Your task to perform on an android device: Go to battery settings Image 0: 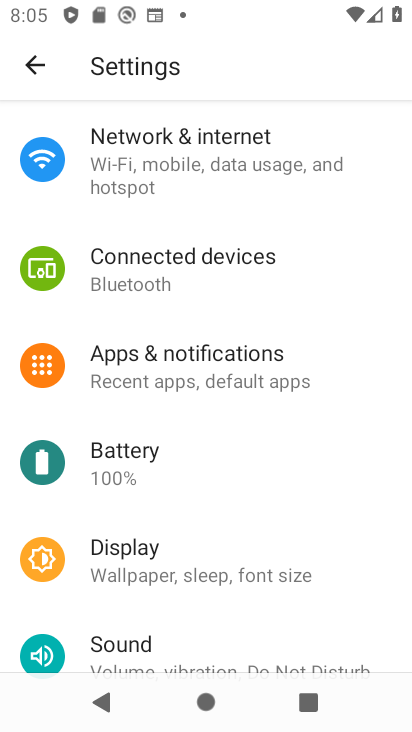
Step 0: press home button
Your task to perform on an android device: Go to battery settings Image 1: 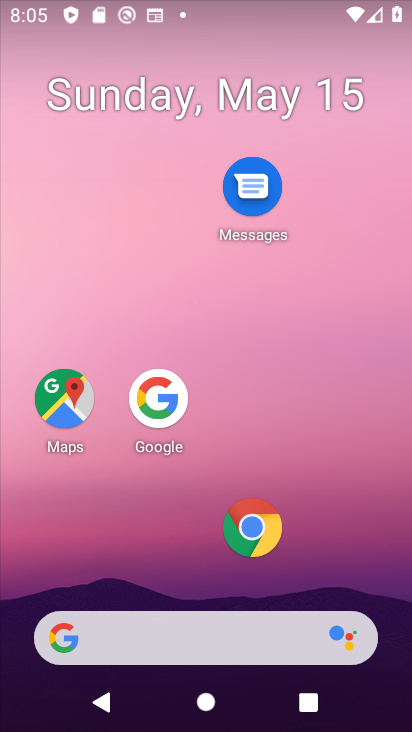
Step 1: drag from (165, 656) to (328, 69)
Your task to perform on an android device: Go to battery settings Image 2: 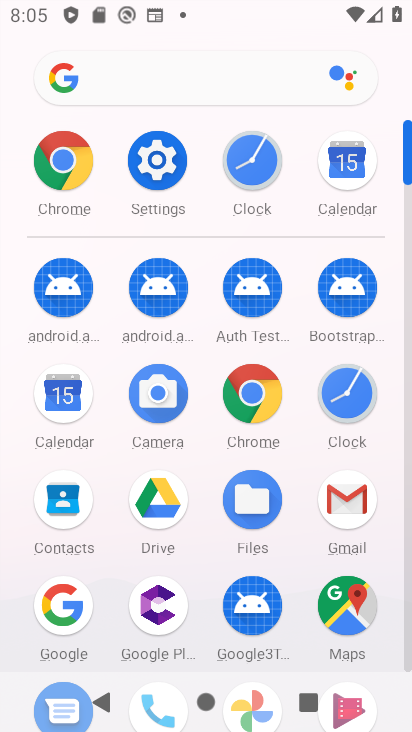
Step 2: click (153, 169)
Your task to perform on an android device: Go to battery settings Image 3: 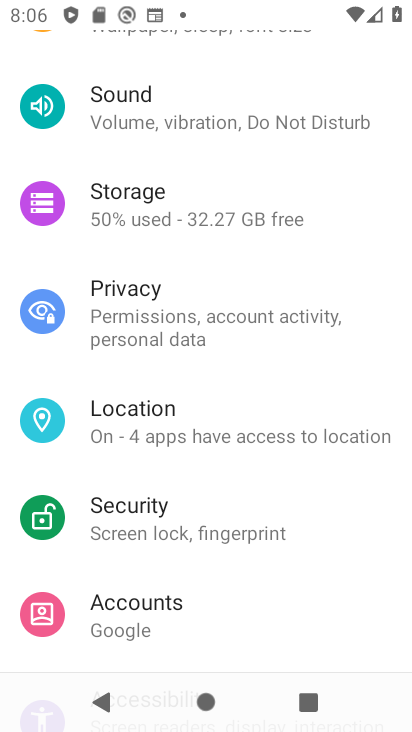
Step 3: drag from (283, 73) to (189, 455)
Your task to perform on an android device: Go to battery settings Image 4: 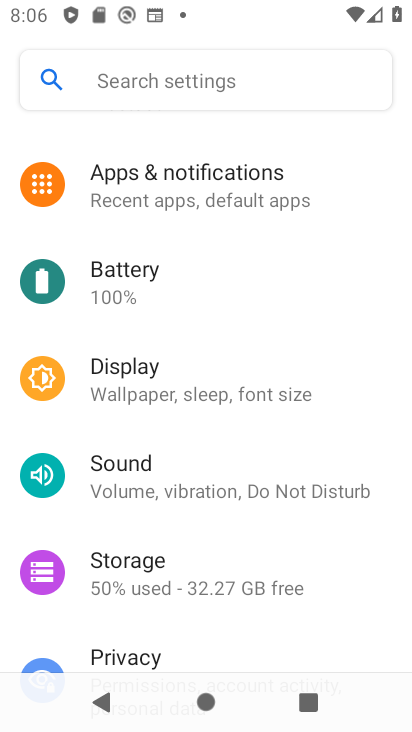
Step 4: click (139, 277)
Your task to perform on an android device: Go to battery settings Image 5: 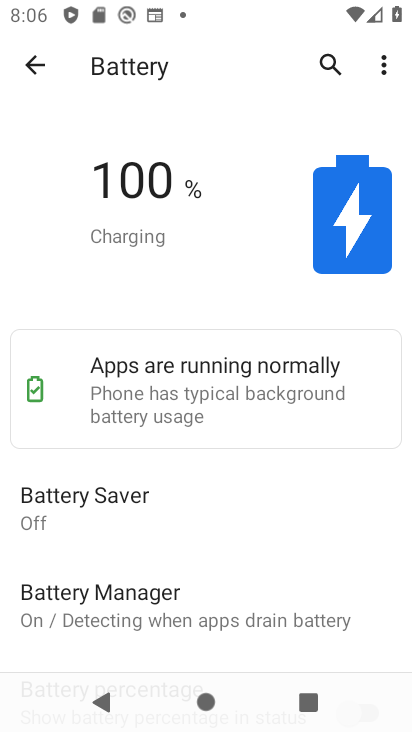
Step 5: task complete